Your task to perform on an android device: Check the news Image 0: 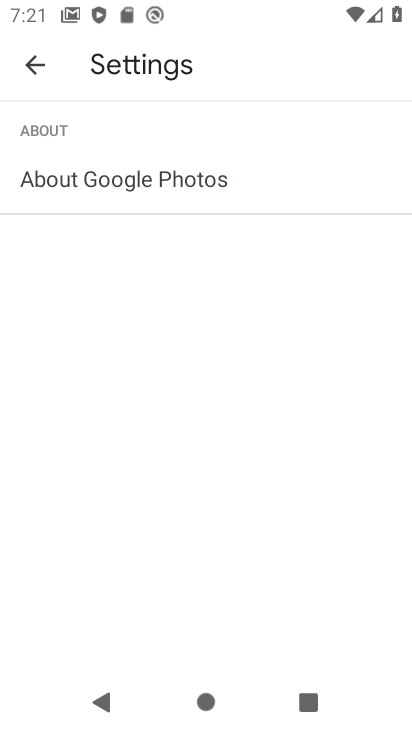
Step 0: press home button
Your task to perform on an android device: Check the news Image 1: 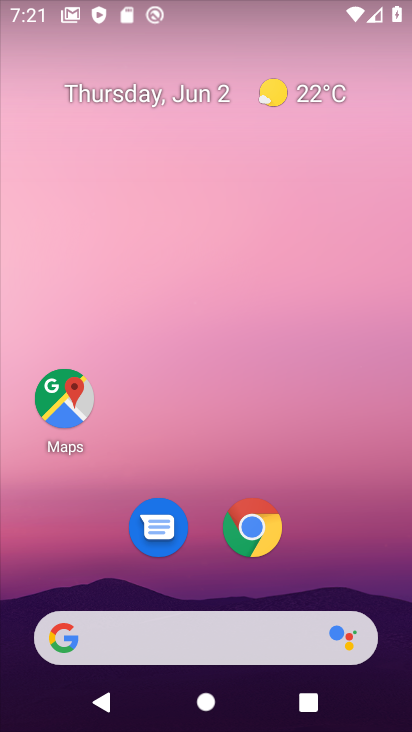
Step 1: task complete